Your task to perform on an android device: open app "Booking.com: Hotels and more" (install if not already installed) and enter user name: "misting@outlook.com" and password: "blandly" Image 0: 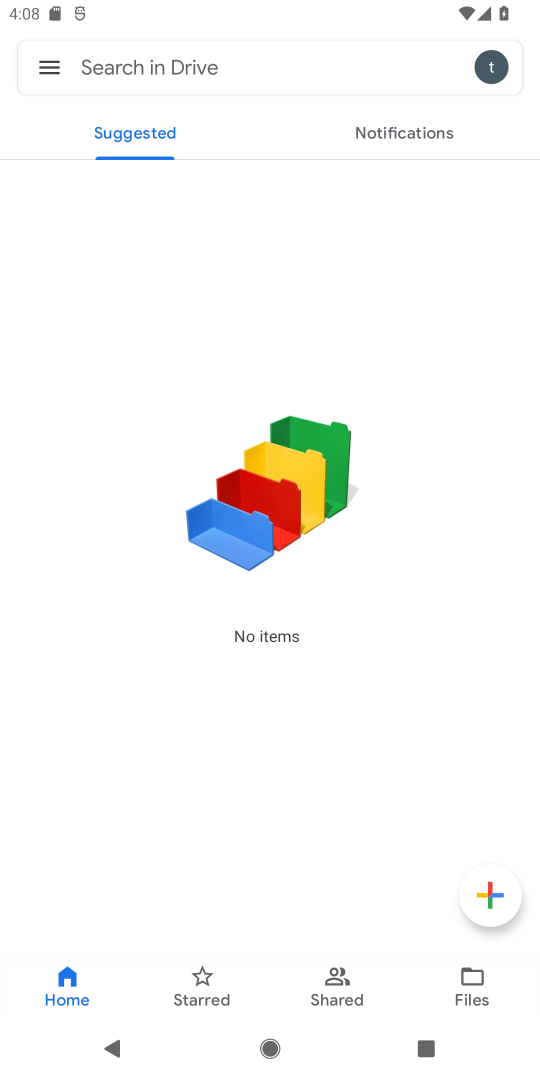
Step 0: press home button
Your task to perform on an android device: open app "Booking.com: Hotels and more" (install if not already installed) and enter user name: "misting@outlook.com" and password: "blandly" Image 1: 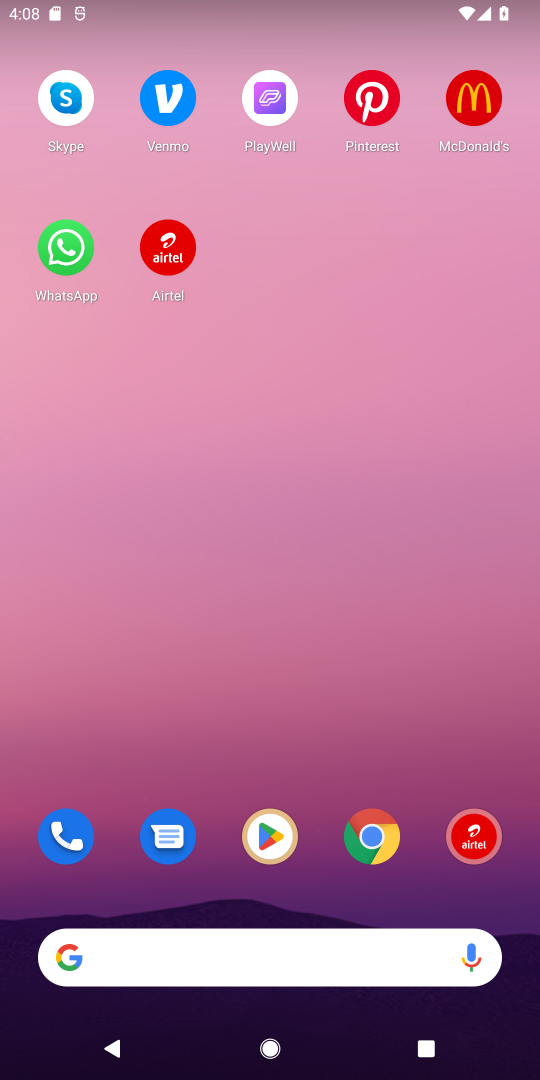
Step 1: click (273, 839)
Your task to perform on an android device: open app "Booking.com: Hotels and more" (install if not already installed) and enter user name: "misting@outlook.com" and password: "blandly" Image 2: 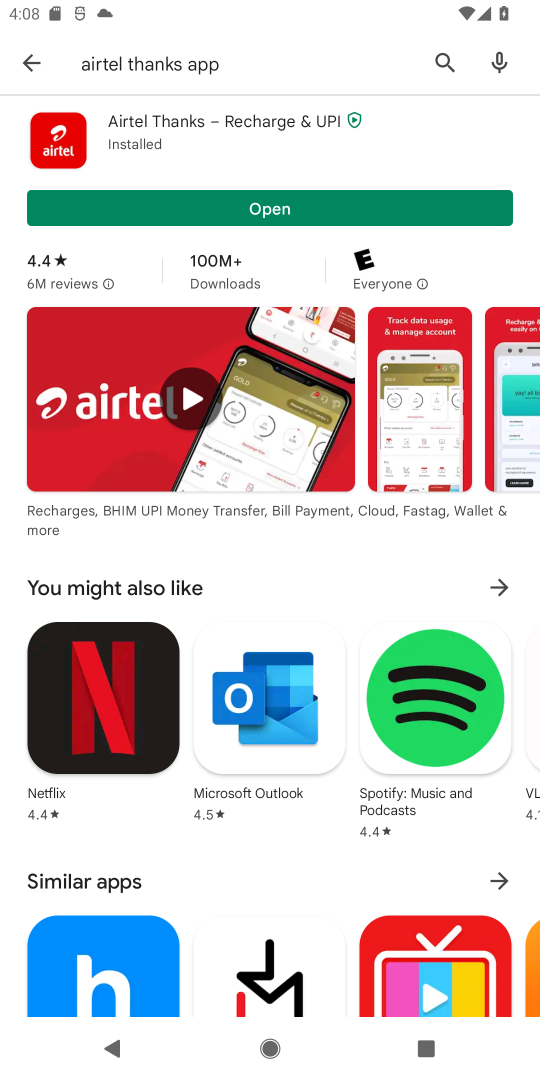
Step 2: click (443, 64)
Your task to perform on an android device: open app "Booking.com: Hotels and more" (install if not already installed) and enter user name: "misting@outlook.com" and password: "blandly" Image 3: 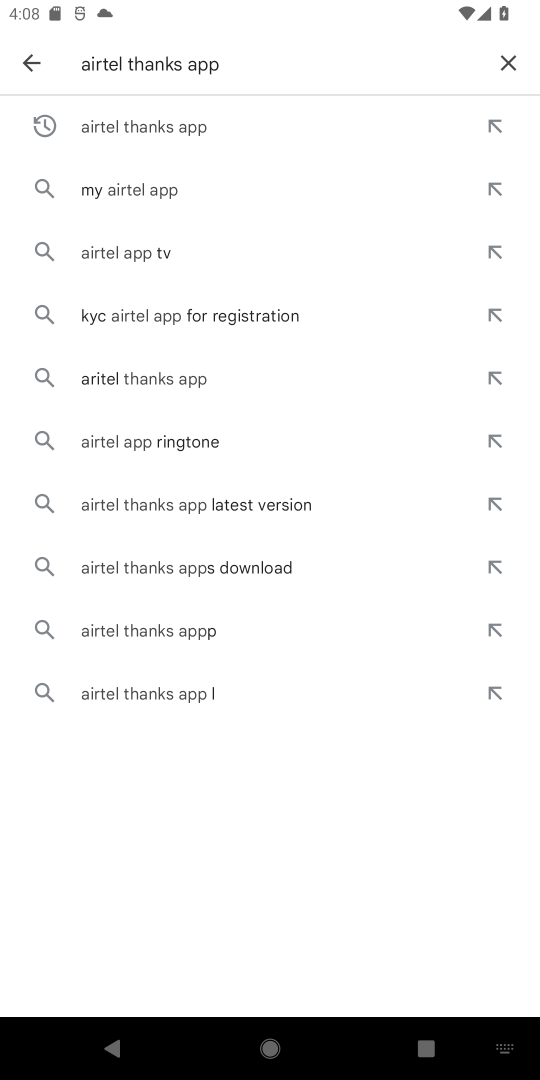
Step 3: click (507, 59)
Your task to perform on an android device: open app "Booking.com: Hotels and more" (install if not already installed) and enter user name: "misting@outlook.com" and password: "blandly" Image 4: 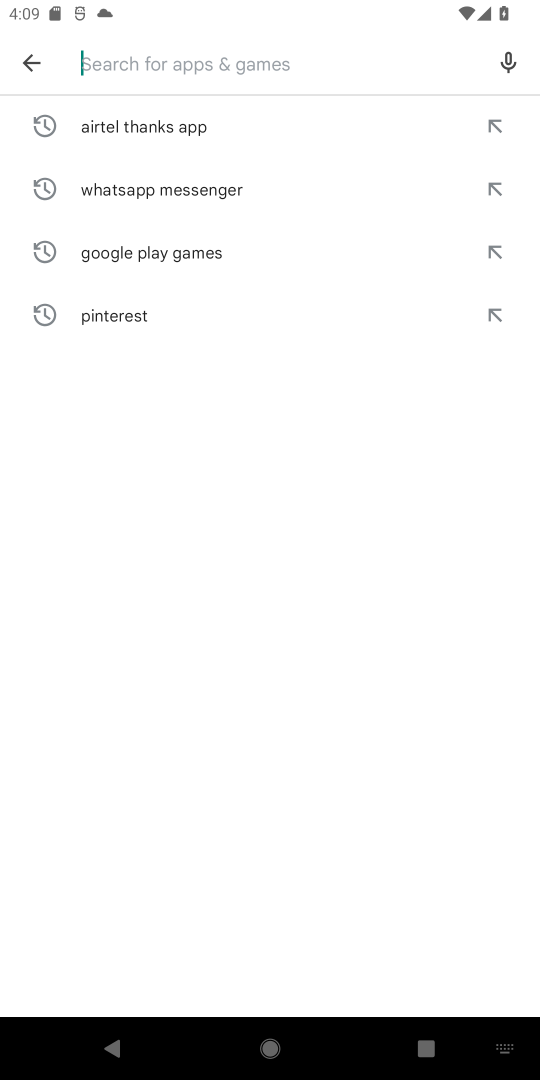
Step 4: type "Booking"
Your task to perform on an android device: open app "Booking.com: Hotels and more" (install if not already installed) and enter user name: "misting@outlook.com" and password: "blandly" Image 5: 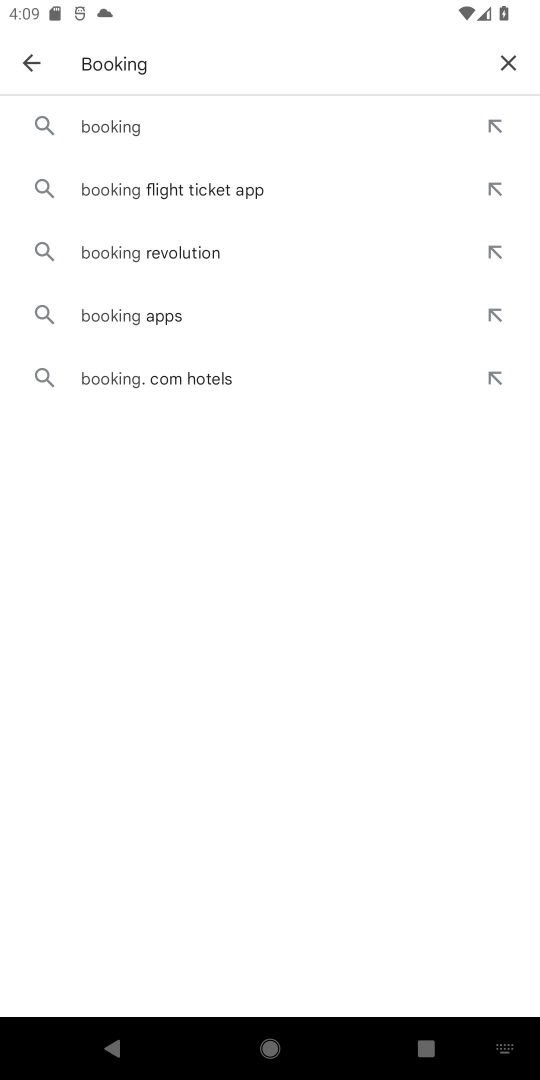
Step 5: click (131, 383)
Your task to perform on an android device: open app "Booking.com: Hotels and more" (install if not already installed) and enter user name: "misting@outlook.com" and password: "blandly" Image 6: 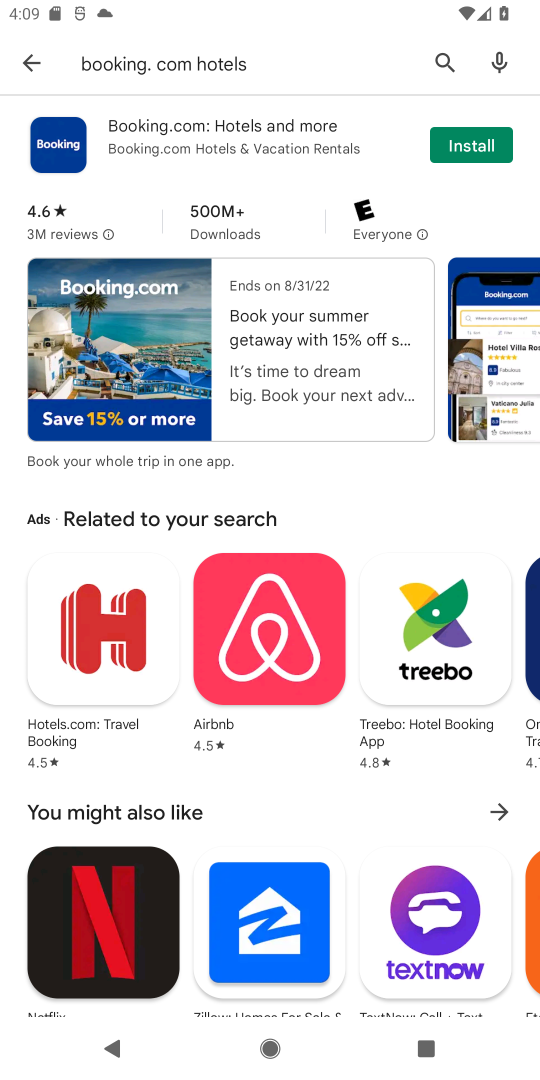
Step 6: click (154, 142)
Your task to perform on an android device: open app "Booking.com: Hotels and more" (install if not already installed) and enter user name: "misting@outlook.com" and password: "blandly" Image 7: 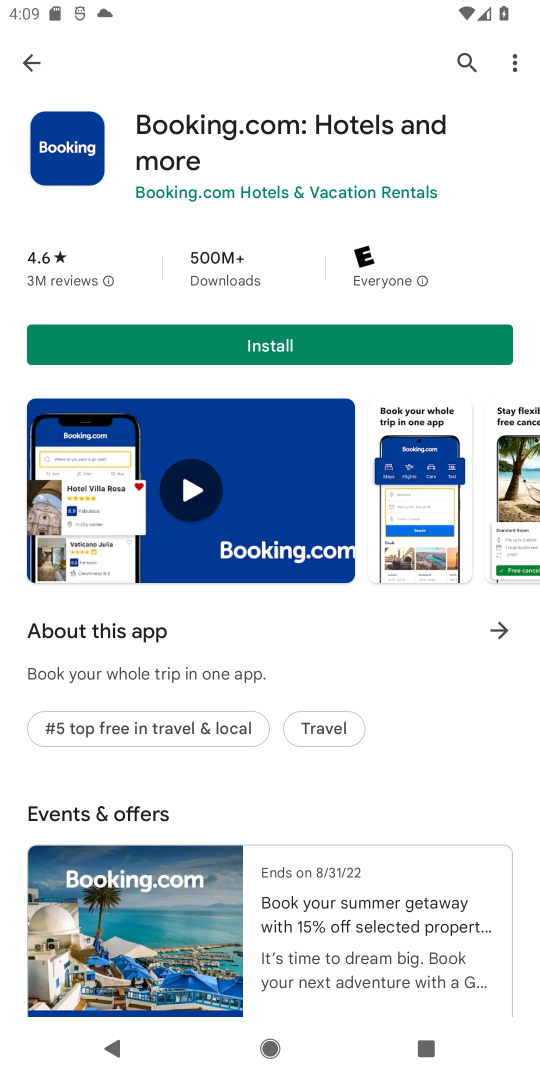
Step 7: click (269, 343)
Your task to perform on an android device: open app "Booking.com: Hotels and more" (install if not already installed) and enter user name: "misting@outlook.com" and password: "blandly" Image 8: 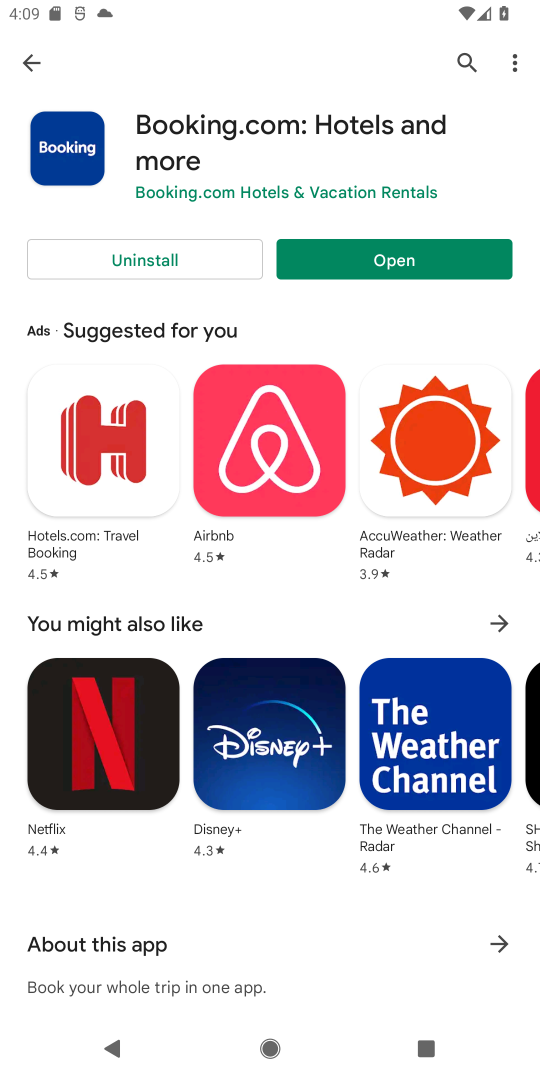
Step 8: click (391, 261)
Your task to perform on an android device: open app "Booking.com: Hotels and more" (install if not already installed) and enter user name: "misting@outlook.com" and password: "blandly" Image 9: 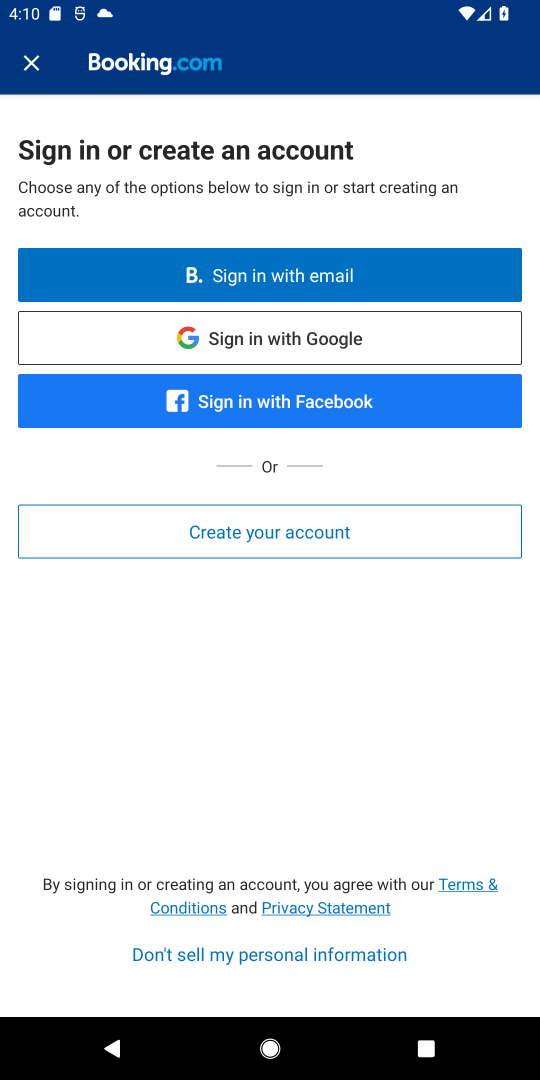
Step 9: click (261, 269)
Your task to perform on an android device: open app "Booking.com: Hotels and more" (install if not already installed) and enter user name: "misting@outlook.com" and password: "blandly" Image 10: 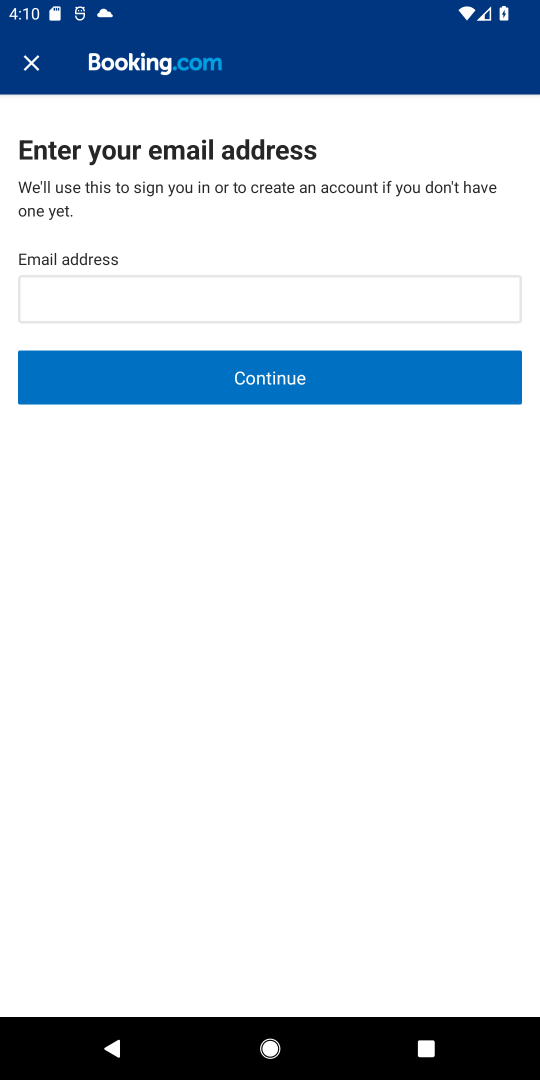
Step 10: click (194, 303)
Your task to perform on an android device: open app "Booking.com: Hotels and more" (install if not already installed) and enter user name: "misting@outlook.com" and password: "blandly" Image 11: 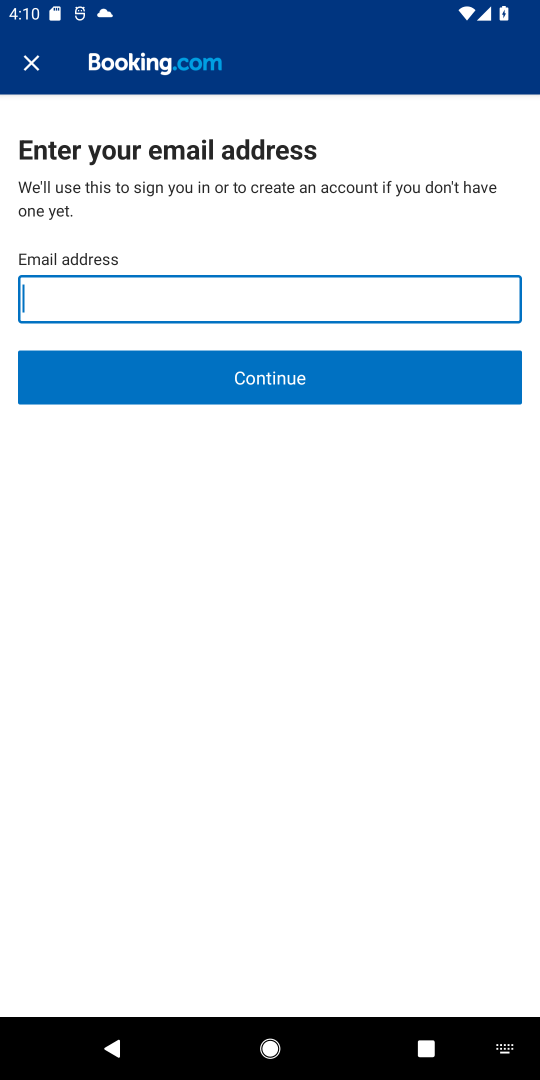
Step 11: type "misting@outlook.com"
Your task to perform on an android device: open app "Booking.com: Hotels and more" (install if not already installed) and enter user name: "misting@outlook.com" and password: "blandly" Image 12: 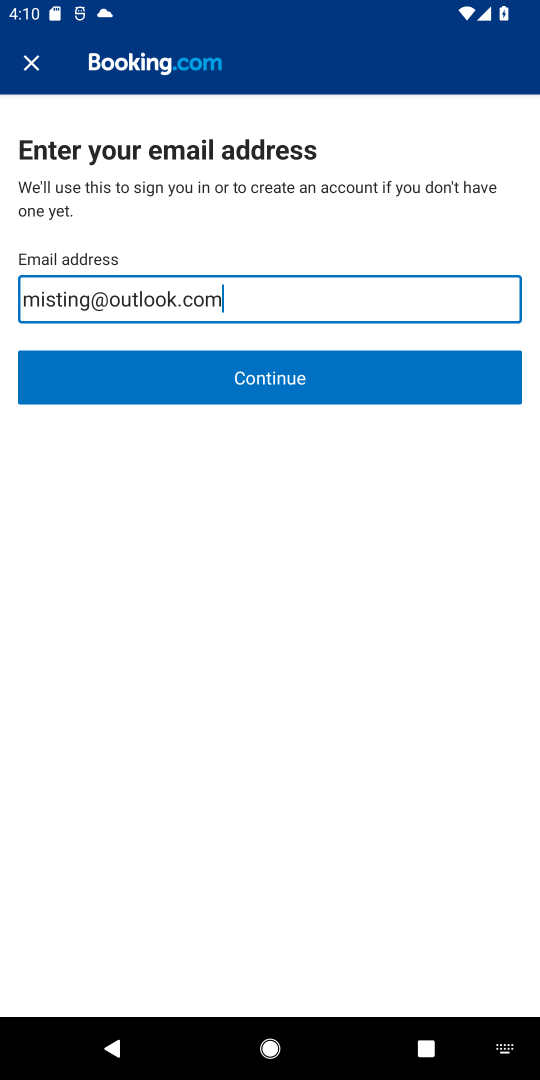
Step 12: click (257, 370)
Your task to perform on an android device: open app "Booking.com: Hotels and more" (install if not already installed) and enter user name: "misting@outlook.com" and password: "blandly" Image 13: 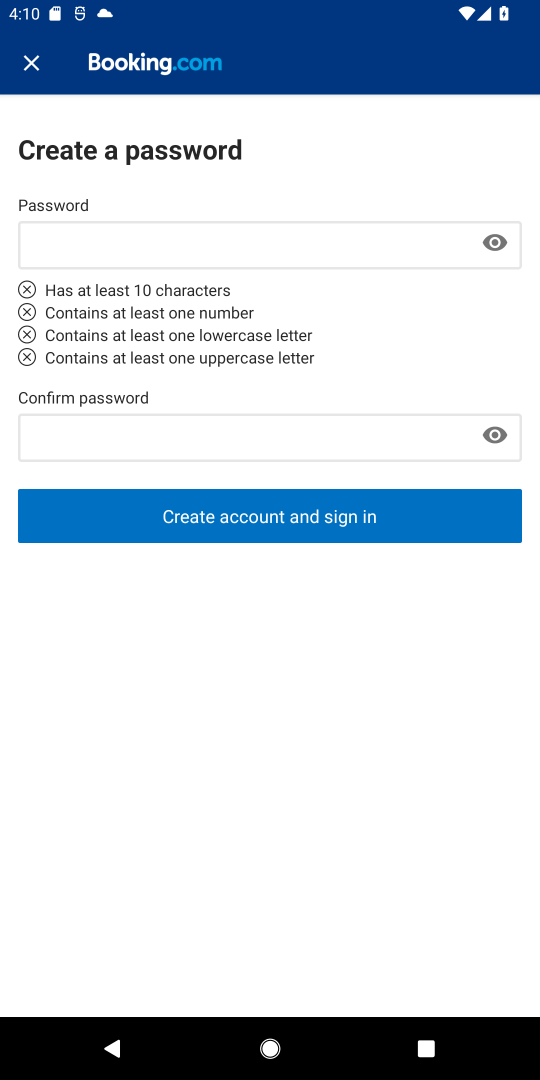
Step 13: click (95, 229)
Your task to perform on an android device: open app "Booking.com: Hotels and more" (install if not already installed) and enter user name: "misting@outlook.com" and password: "blandly" Image 14: 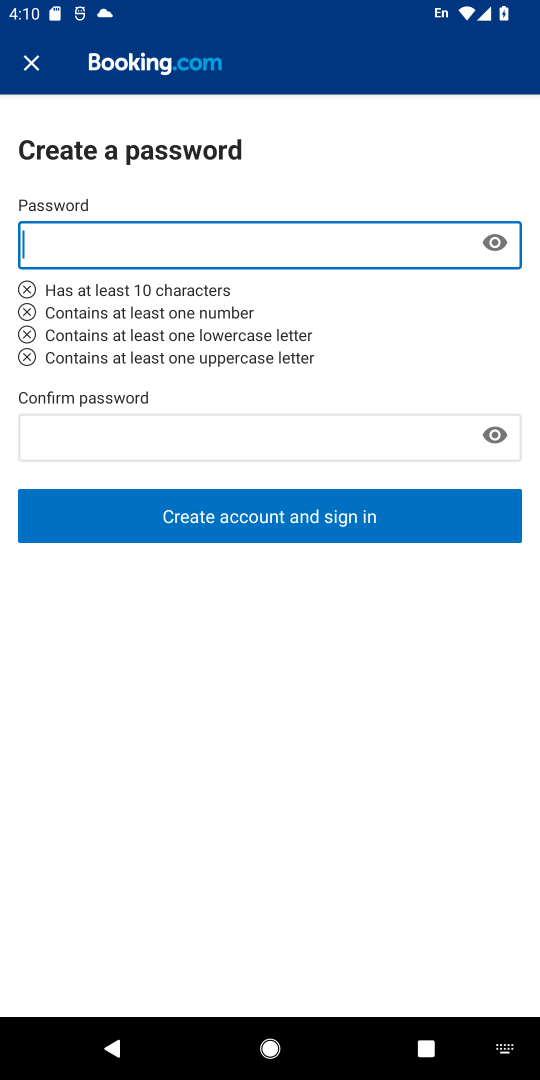
Step 14: type "blandly"
Your task to perform on an android device: open app "Booking.com: Hotels and more" (install if not already installed) and enter user name: "misting@outlook.com" and password: "blandly" Image 15: 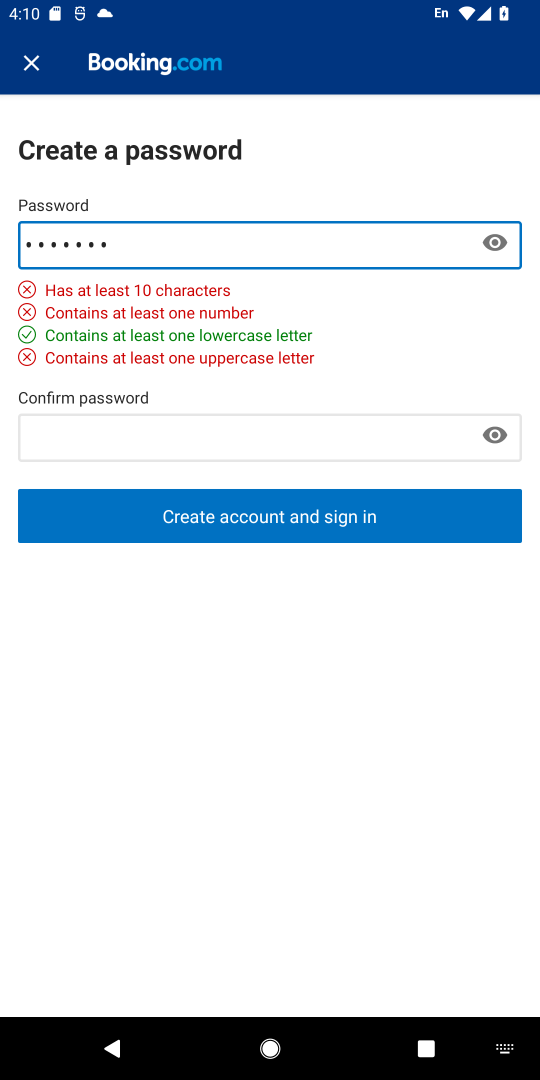
Step 15: task complete